Your task to perform on an android device: toggle notification dots Image 0: 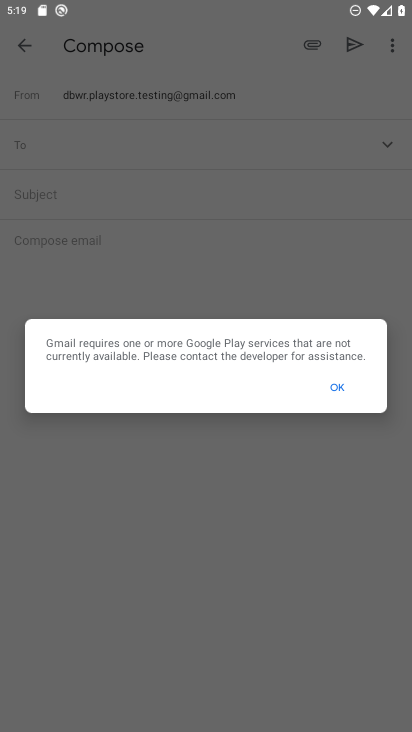
Step 0: press home button
Your task to perform on an android device: toggle notification dots Image 1: 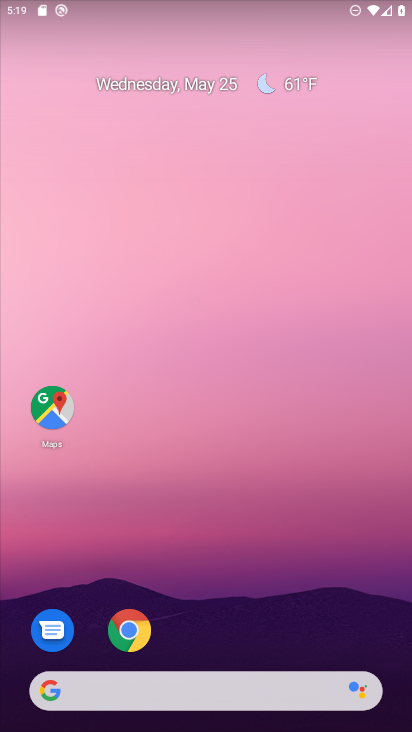
Step 1: drag from (257, 492) to (314, 52)
Your task to perform on an android device: toggle notification dots Image 2: 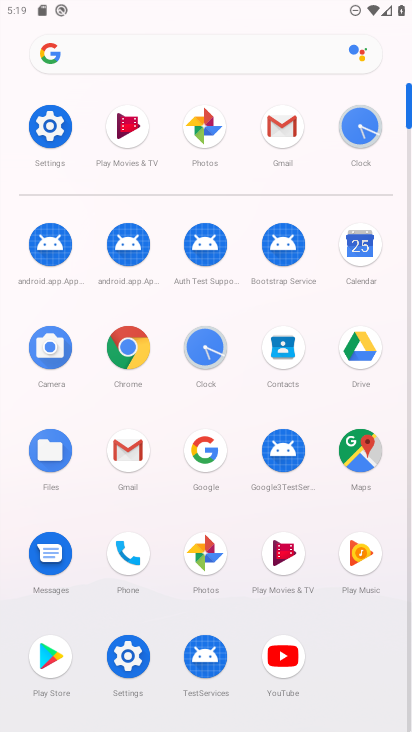
Step 2: click (46, 120)
Your task to perform on an android device: toggle notification dots Image 3: 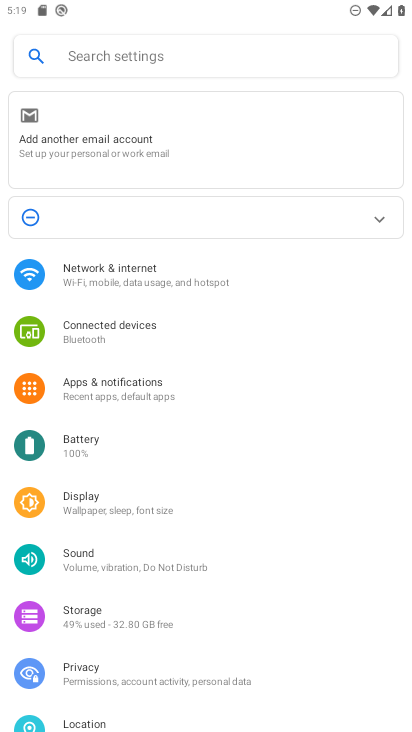
Step 3: click (139, 386)
Your task to perform on an android device: toggle notification dots Image 4: 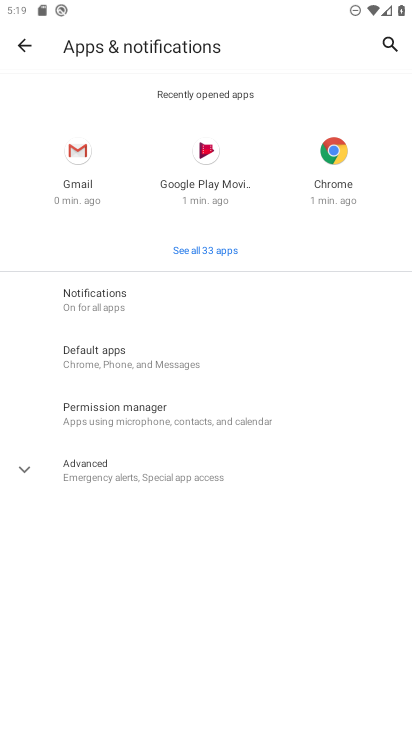
Step 4: click (131, 292)
Your task to perform on an android device: toggle notification dots Image 5: 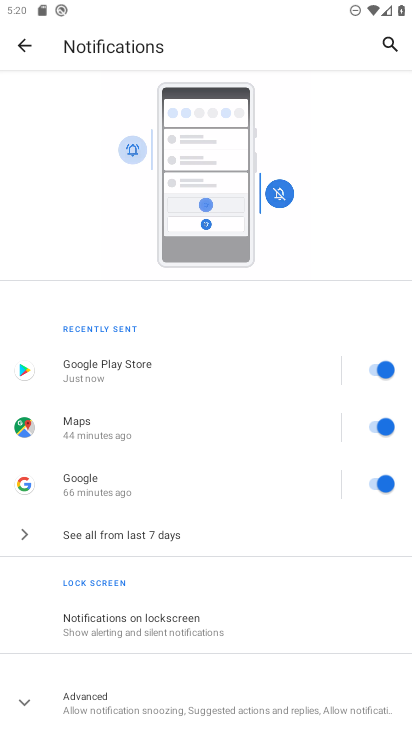
Step 5: drag from (187, 675) to (249, 178)
Your task to perform on an android device: toggle notification dots Image 6: 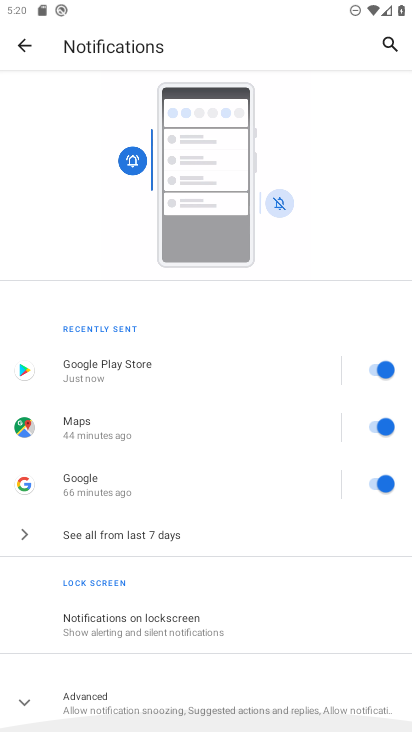
Step 6: click (160, 710)
Your task to perform on an android device: toggle notification dots Image 7: 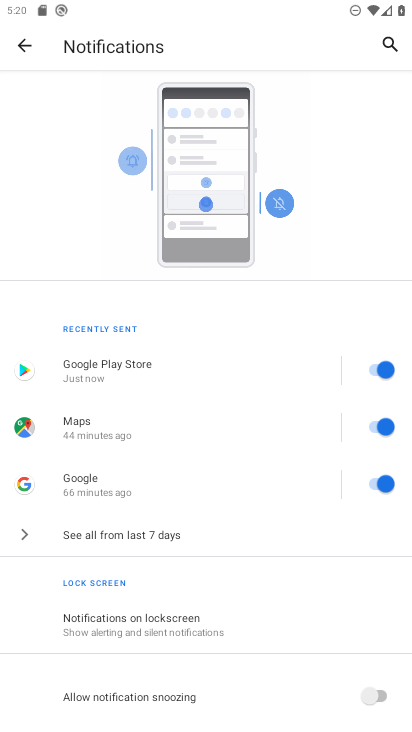
Step 7: drag from (191, 634) to (186, 204)
Your task to perform on an android device: toggle notification dots Image 8: 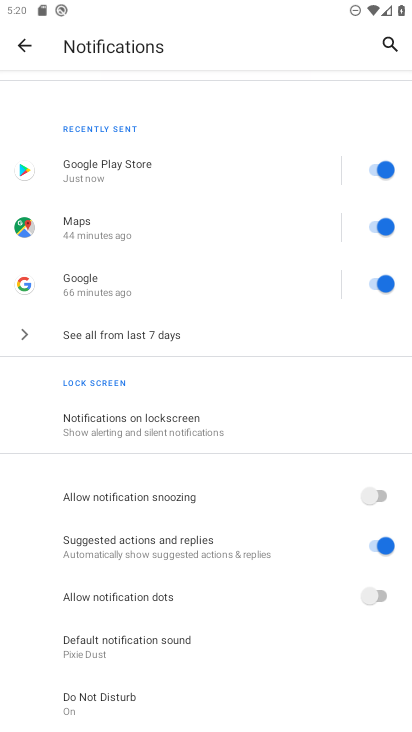
Step 8: click (375, 592)
Your task to perform on an android device: toggle notification dots Image 9: 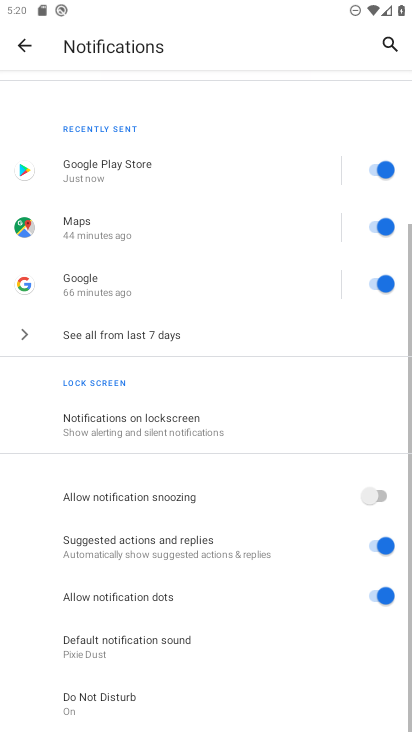
Step 9: task complete